Your task to perform on an android device: change your default location settings in chrome Image 0: 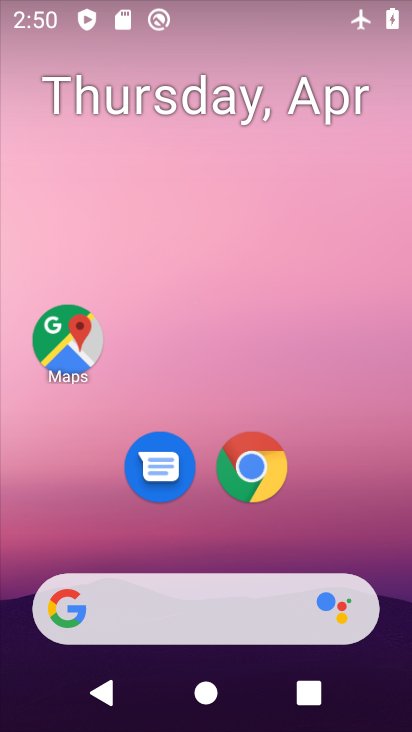
Step 0: click (266, 454)
Your task to perform on an android device: change your default location settings in chrome Image 1: 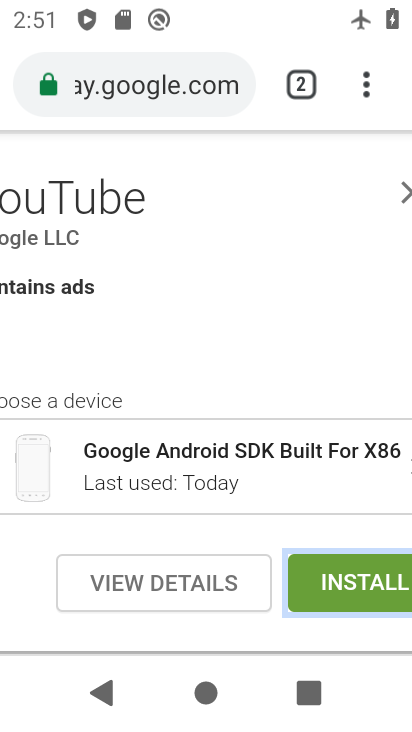
Step 1: click (365, 86)
Your task to perform on an android device: change your default location settings in chrome Image 2: 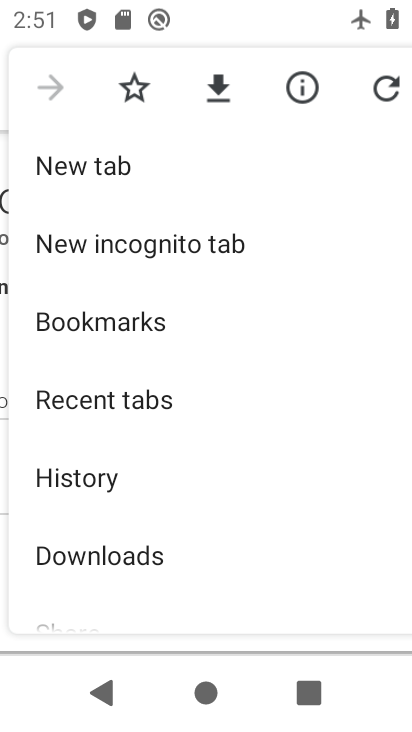
Step 2: drag from (227, 517) to (236, 134)
Your task to perform on an android device: change your default location settings in chrome Image 3: 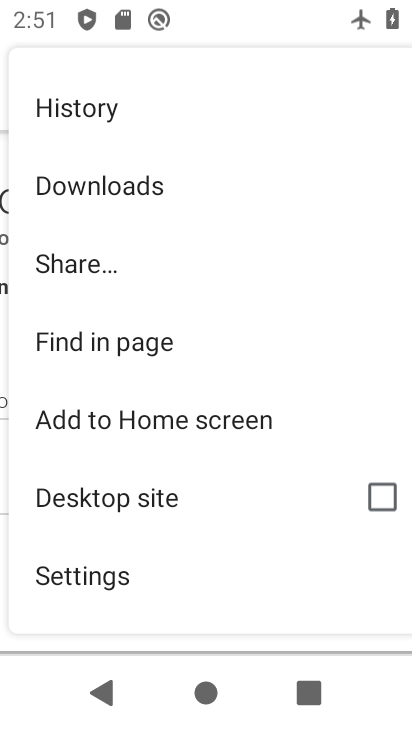
Step 3: drag from (198, 560) to (199, 185)
Your task to perform on an android device: change your default location settings in chrome Image 4: 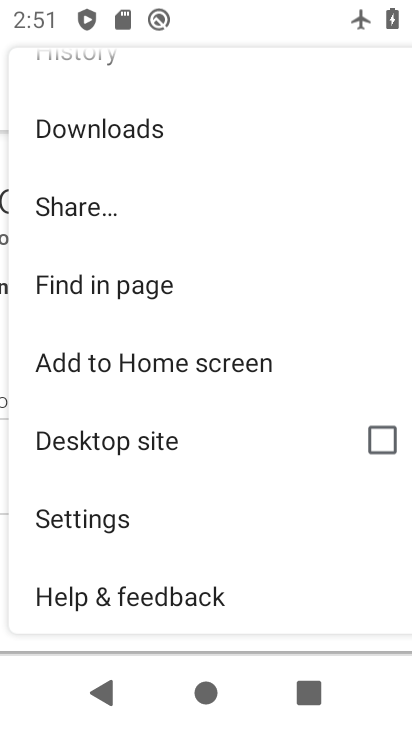
Step 4: click (171, 512)
Your task to perform on an android device: change your default location settings in chrome Image 5: 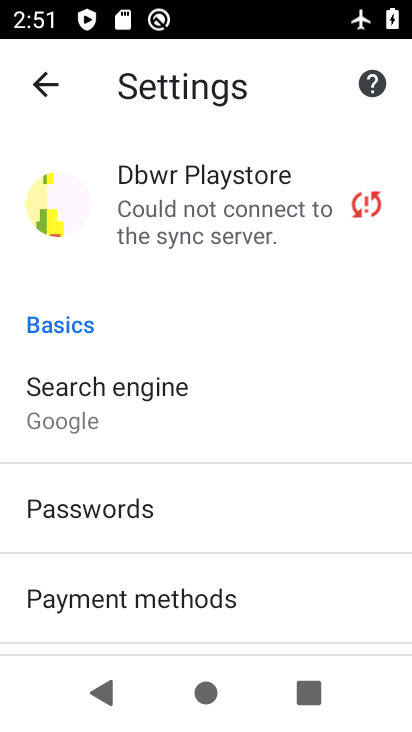
Step 5: drag from (252, 583) to (245, 280)
Your task to perform on an android device: change your default location settings in chrome Image 6: 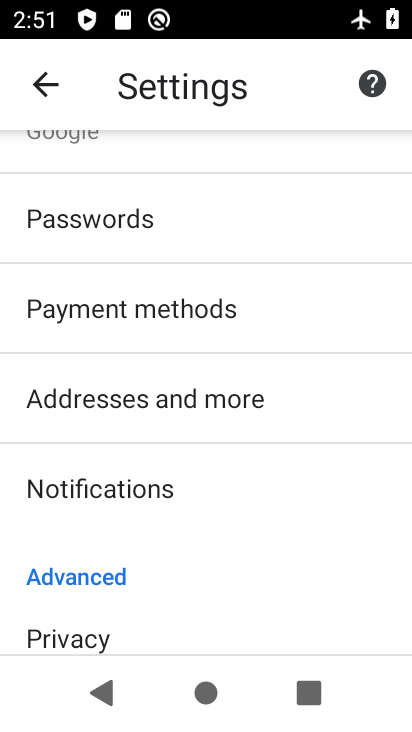
Step 6: drag from (241, 528) to (248, 239)
Your task to perform on an android device: change your default location settings in chrome Image 7: 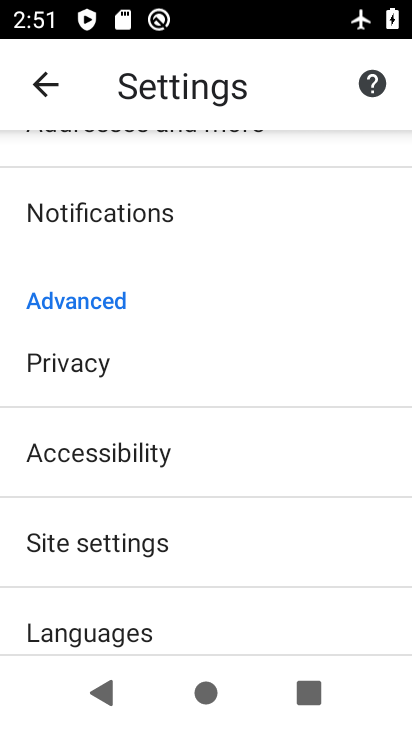
Step 7: click (203, 540)
Your task to perform on an android device: change your default location settings in chrome Image 8: 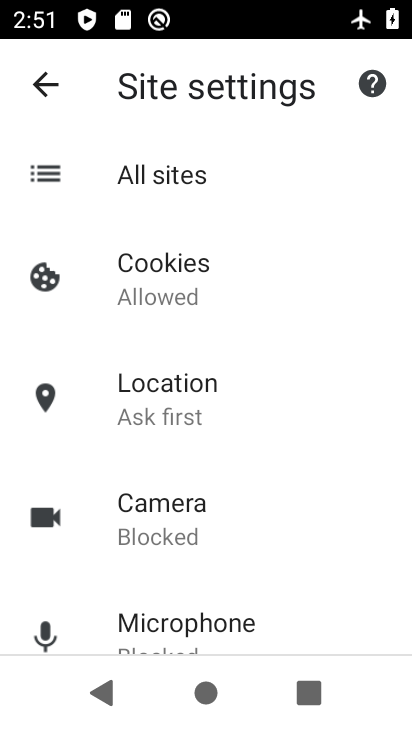
Step 8: click (204, 399)
Your task to perform on an android device: change your default location settings in chrome Image 9: 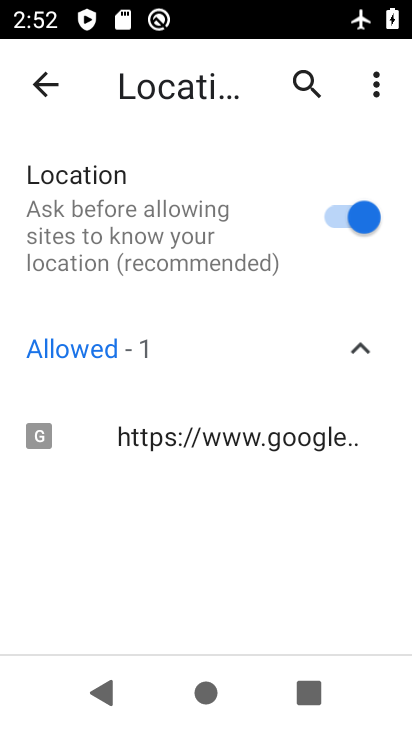
Step 9: click (334, 206)
Your task to perform on an android device: change your default location settings in chrome Image 10: 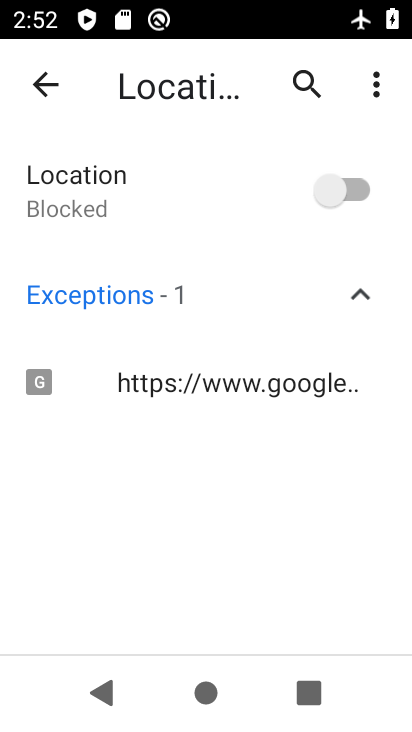
Step 10: task complete